Your task to perform on an android device: delete a single message in the gmail app Image 0: 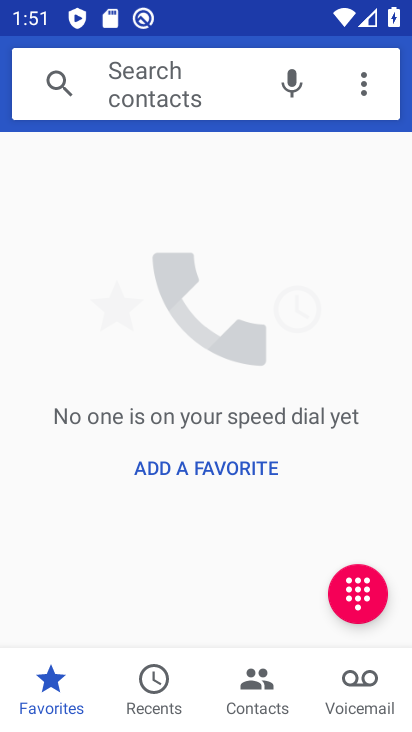
Step 0: press home button
Your task to perform on an android device: delete a single message in the gmail app Image 1: 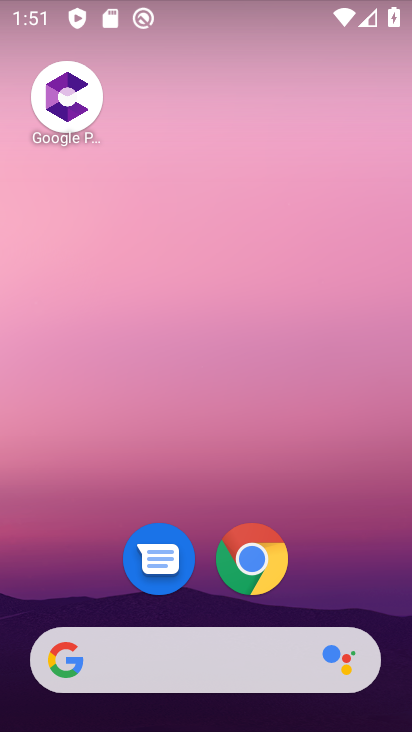
Step 1: drag from (200, 599) to (190, 153)
Your task to perform on an android device: delete a single message in the gmail app Image 2: 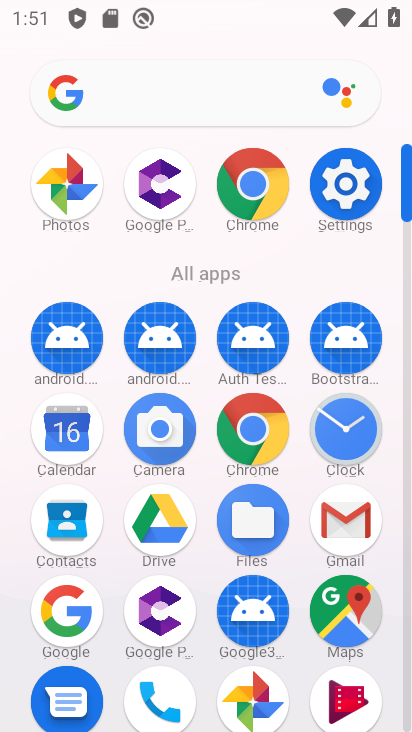
Step 2: click (350, 519)
Your task to perform on an android device: delete a single message in the gmail app Image 3: 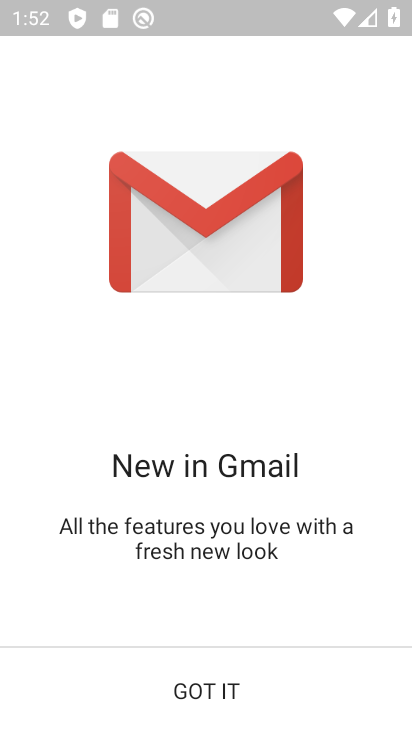
Step 3: click (229, 675)
Your task to perform on an android device: delete a single message in the gmail app Image 4: 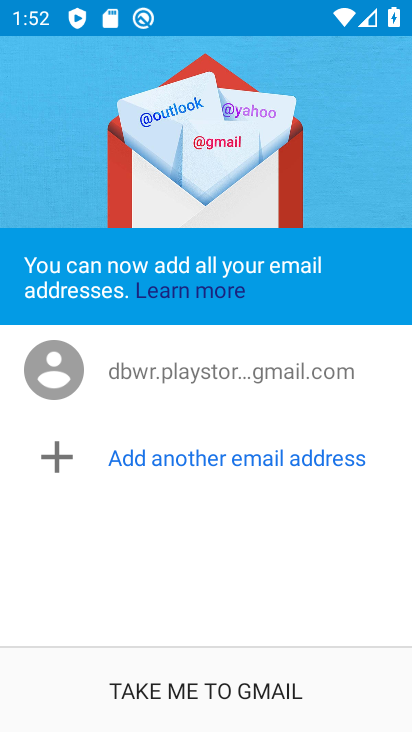
Step 4: click (210, 675)
Your task to perform on an android device: delete a single message in the gmail app Image 5: 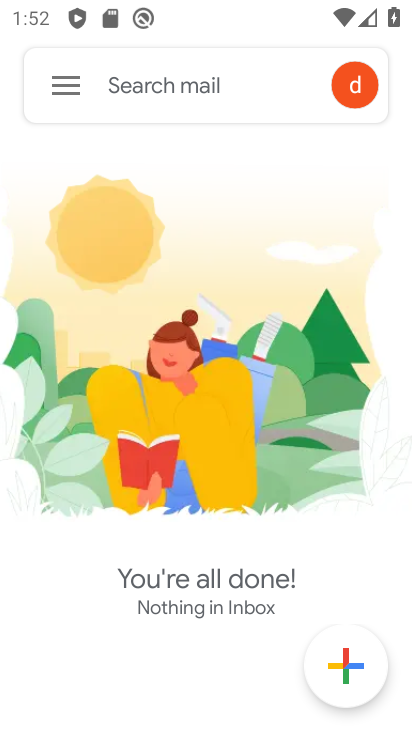
Step 5: click (68, 75)
Your task to perform on an android device: delete a single message in the gmail app Image 6: 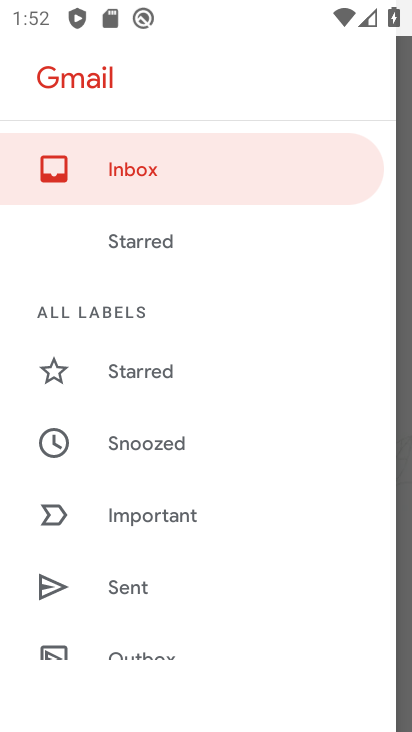
Step 6: drag from (203, 574) to (314, 146)
Your task to perform on an android device: delete a single message in the gmail app Image 7: 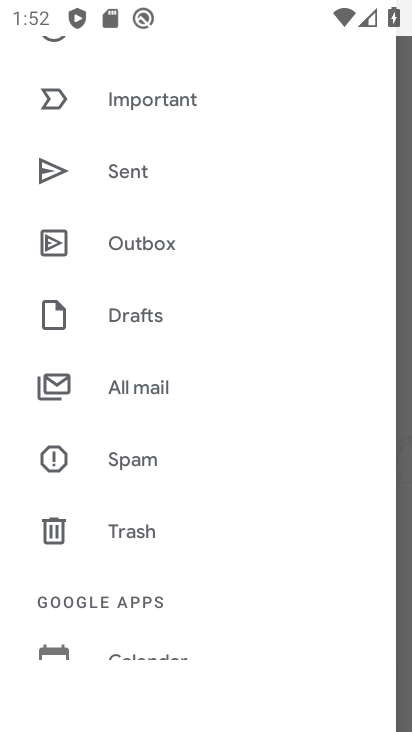
Step 7: drag from (214, 564) to (258, 127)
Your task to perform on an android device: delete a single message in the gmail app Image 8: 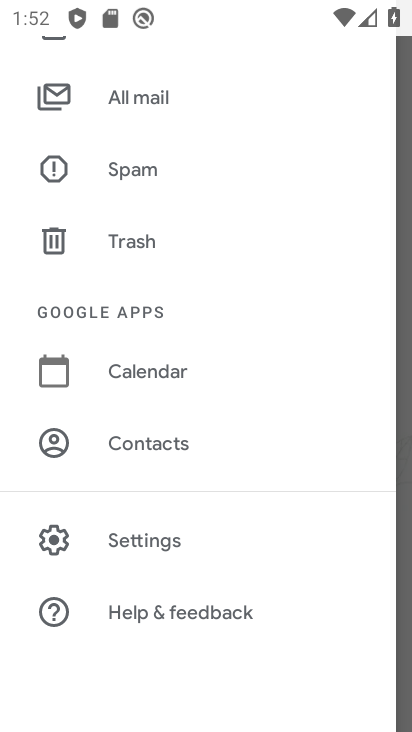
Step 8: click (173, 103)
Your task to perform on an android device: delete a single message in the gmail app Image 9: 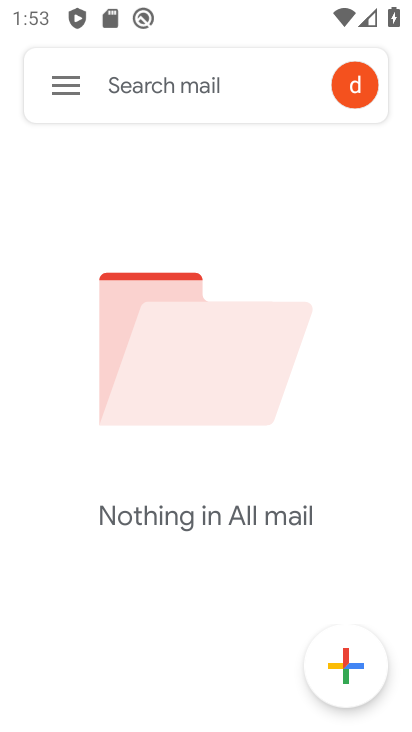
Step 9: task complete